Your task to perform on an android device: read, delete, or share a saved page in the chrome app Image 0: 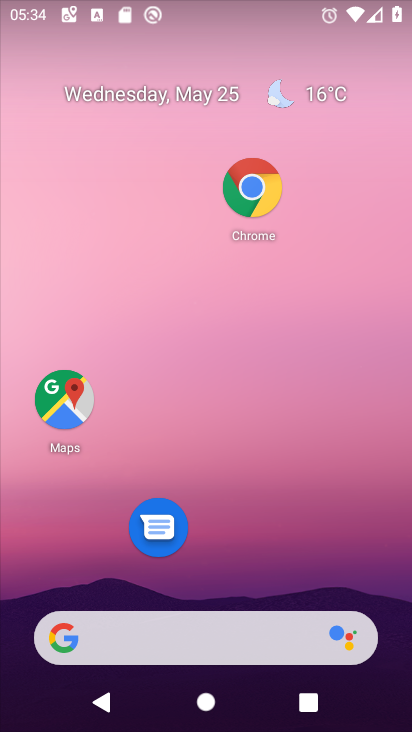
Step 0: drag from (221, 619) to (289, 1)
Your task to perform on an android device: read, delete, or share a saved page in the chrome app Image 1: 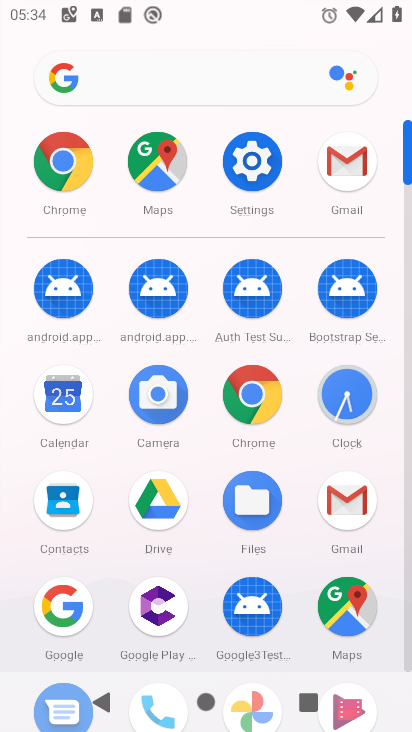
Step 1: click (249, 405)
Your task to perform on an android device: read, delete, or share a saved page in the chrome app Image 2: 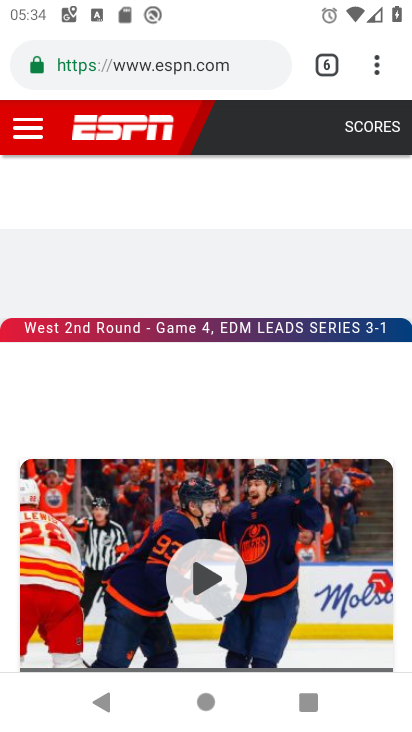
Step 2: click (371, 64)
Your task to perform on an android device: read, delete, or share a saved page in the chrome app Image 3: 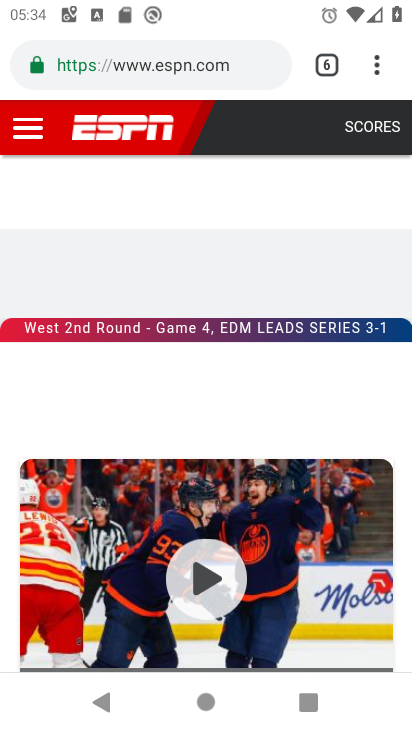
Step 3: task complete